Your task to perform on an android device: turn on airplane mode Image 0: 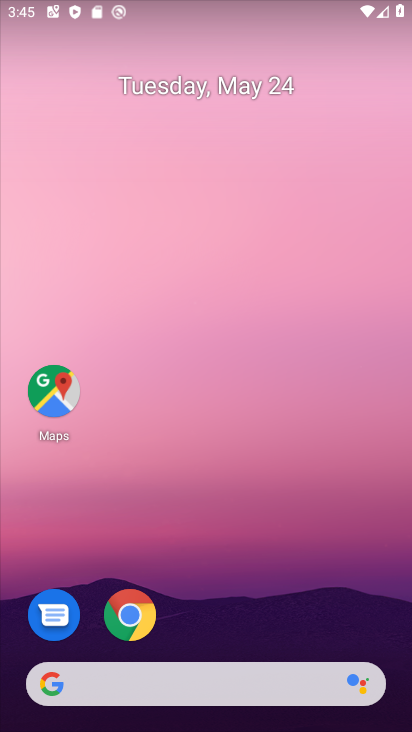
Step 0: drag from (214, 676) to (192, 222)
Your task to perform on an android device: turn on airplane mode Image 1: 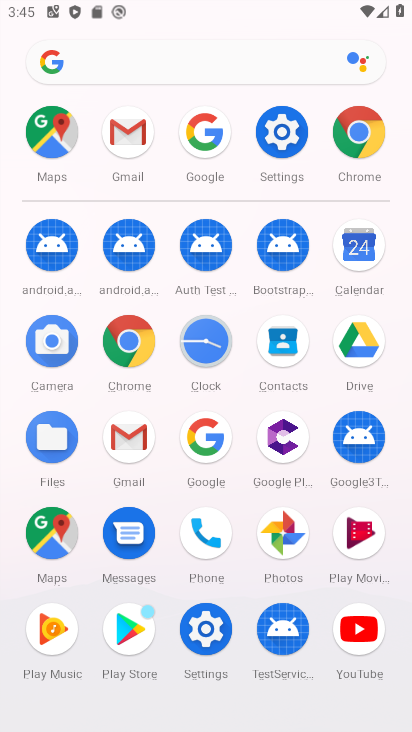
Step 1: click (281, 132)
Your task to perform on an android device: turn on airplane mode Image 2: 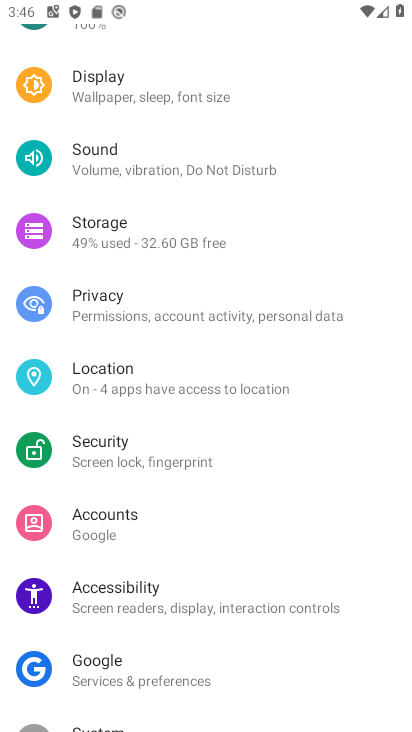
Step 2: drag from (200, 153) to (286, 562)
Your task to perform on an android device: turn on airplane mode Image 3: 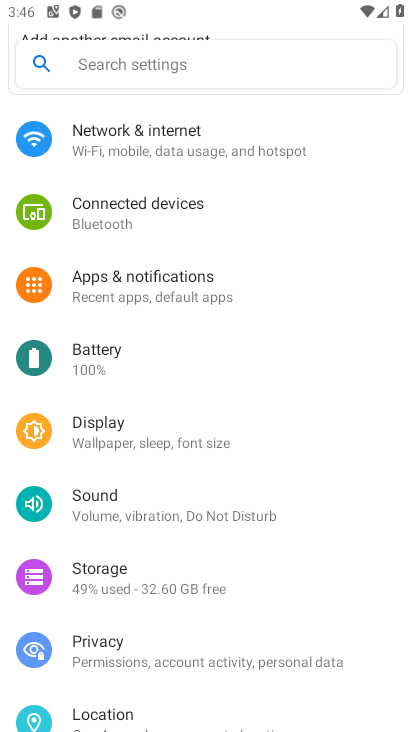
Step 3: drag from (186, 147) to (256, 532)
Your task to perform on an android device: turn on airplane mode Image 4: 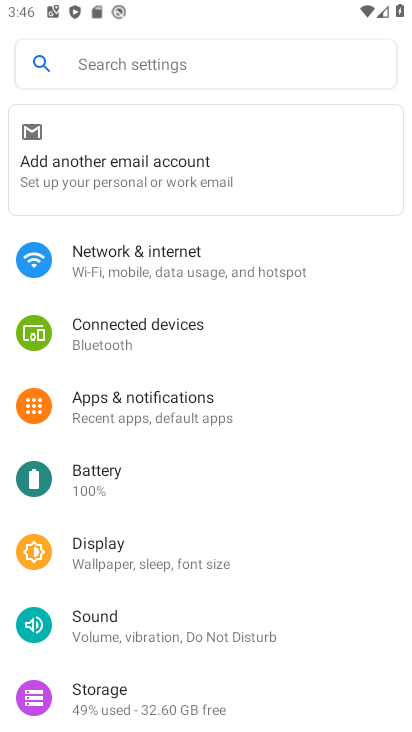
Step 4: click (165, 264)
Your task to perform on an android device: turn on airplane mode Image 5: 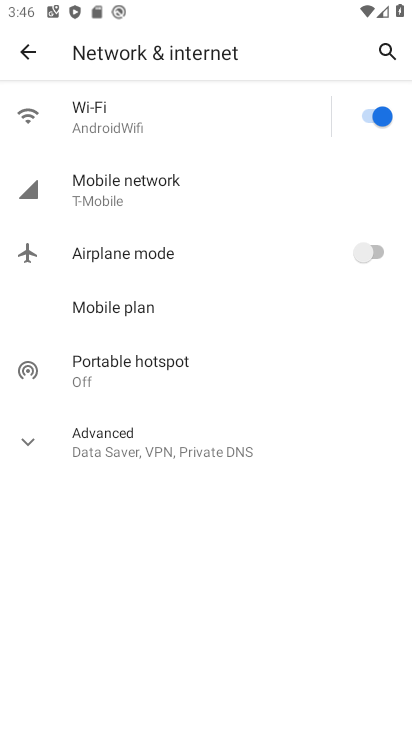
Step 5: click (372, 254)
Your task to perform on an android device: turn on airplane mode Image 6: 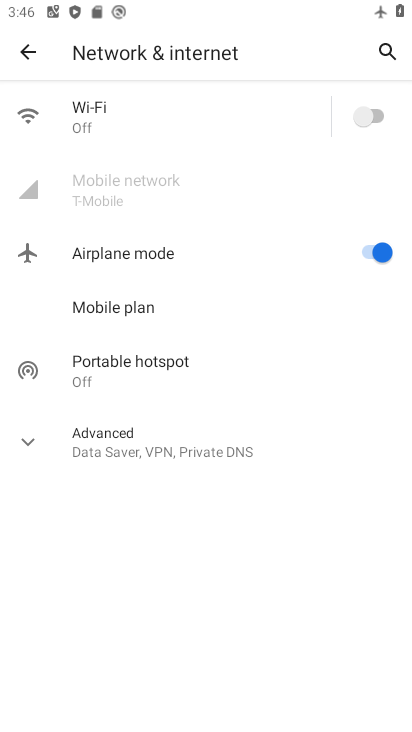
Step 6: task complete